Your task to perform on an android device: Open Android settings Image 0: 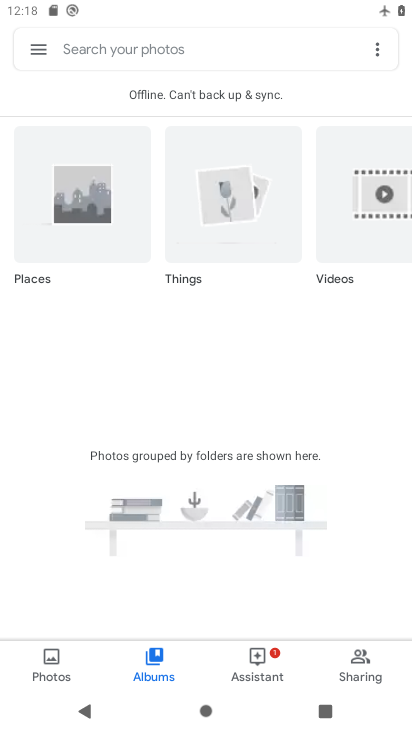
Step 0: press home button
Your task to perform on an android device: Open Android settings Image 1: 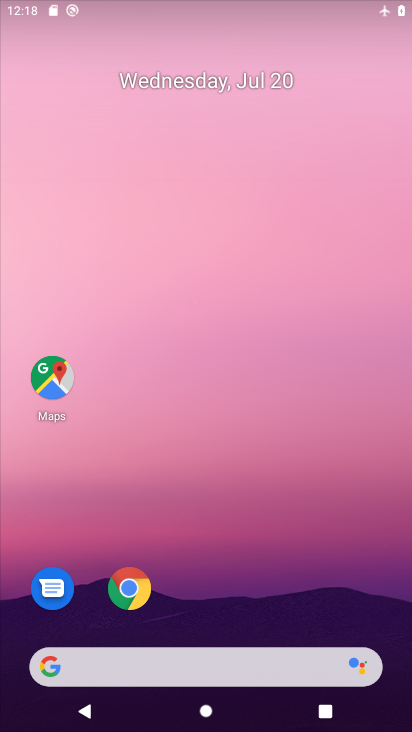
Step 1: drag from (204, 585) to (205, 224)
Your task to perform on an android device: Open Android settings Image 2: 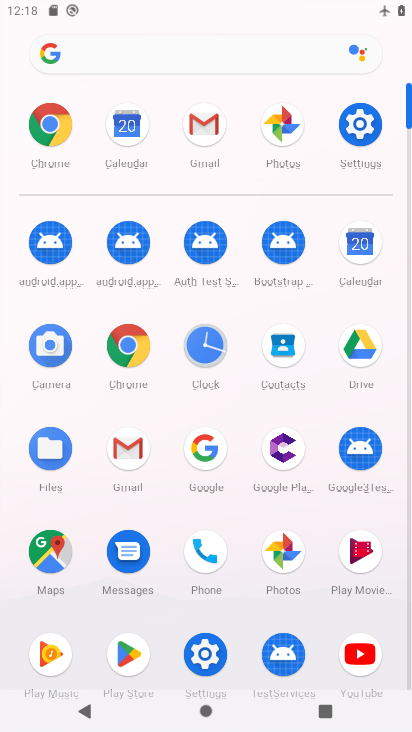
Step 2: click (353, 111)
Your task to perform on an android device: Open Android settings Image 3: 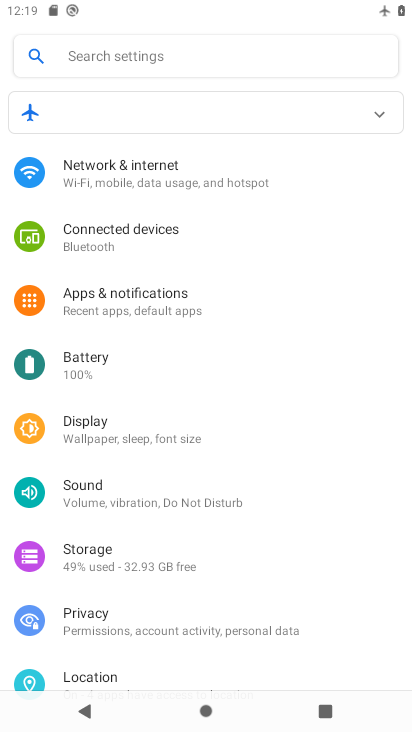
Step 3: task complete